Your task to perform on an android device: Search for lenovo thinkpad on costco, select the first entry, and add it to the cart. Image 0: 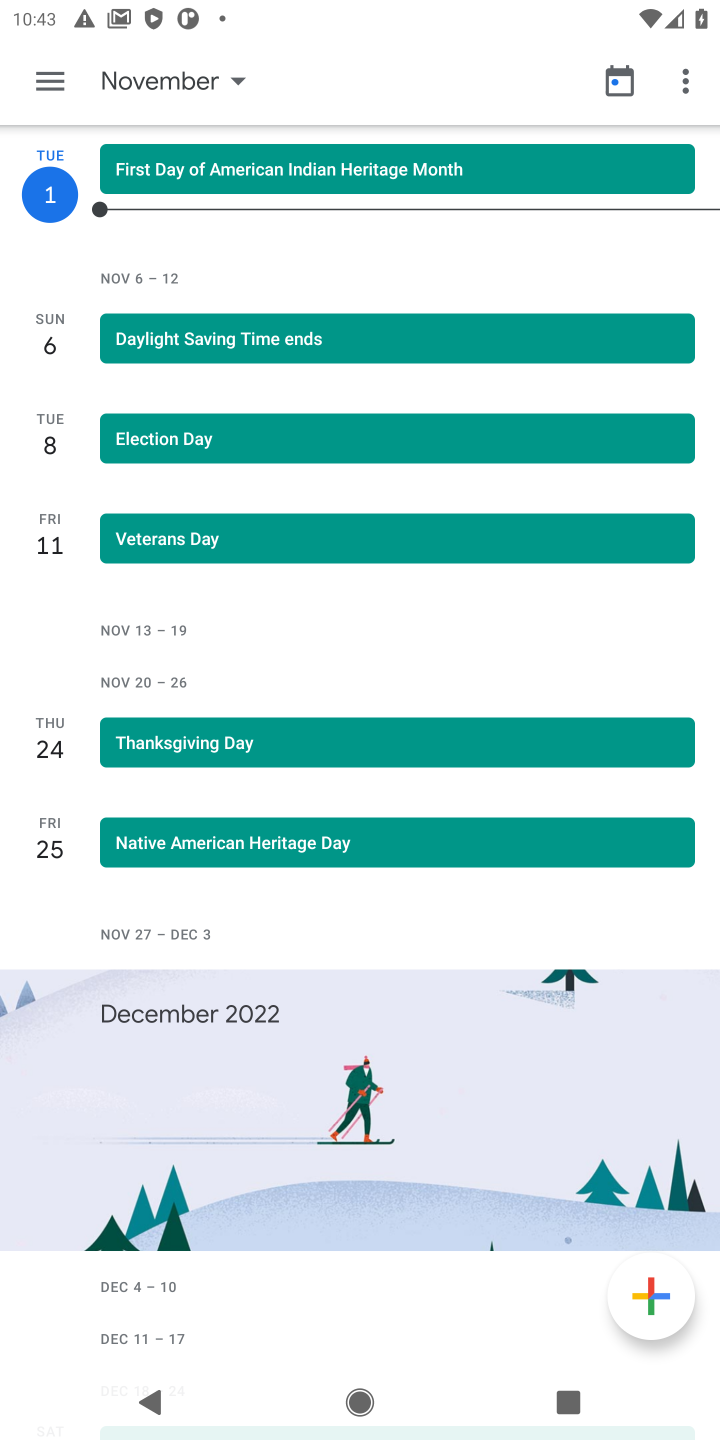
Step 0: press home button
Your task to perform on an android device: Search for lenovo thinkpad on costco, select the first entry, and add it to the cart. Image 1: 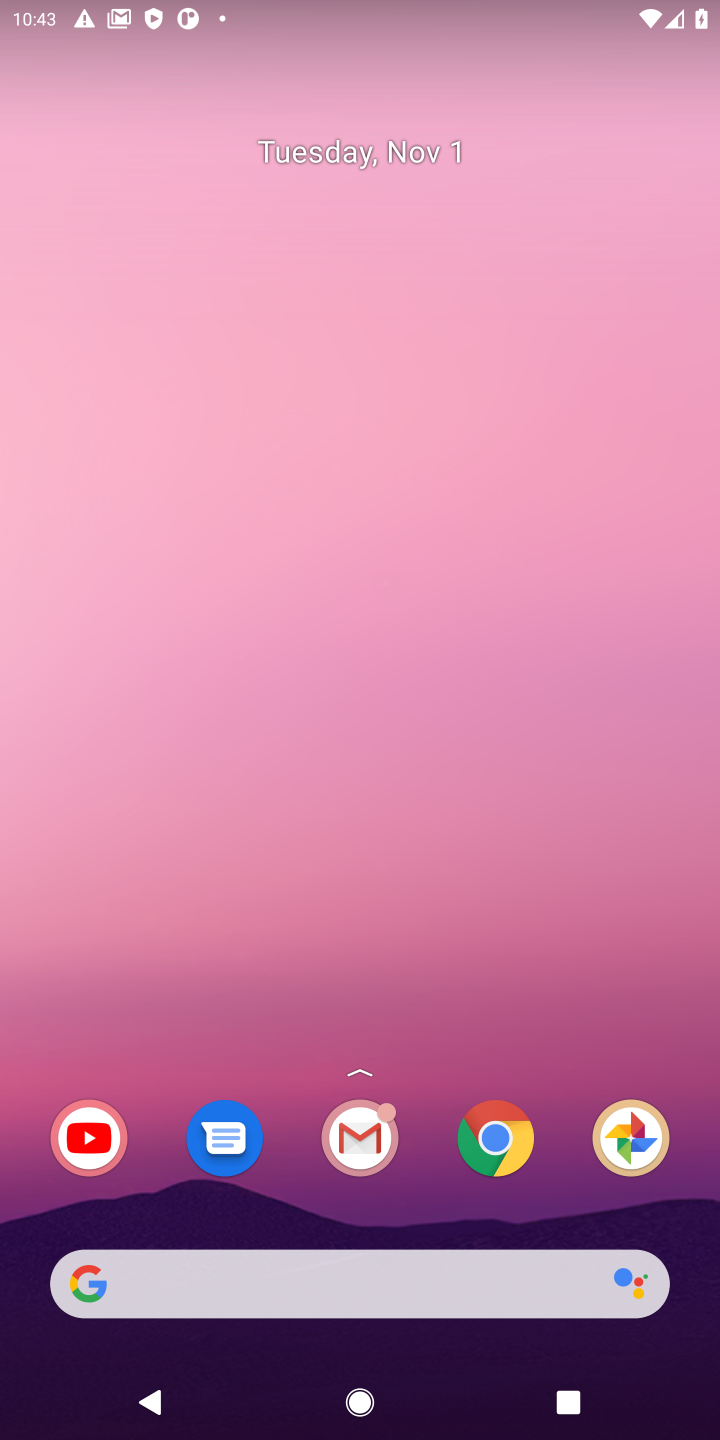
Step 1: click (485, 1141)
Your task to perform on an android device: Search for lenovo thinkpad on costco, select the first entry, and add it to the cart. Image 2: 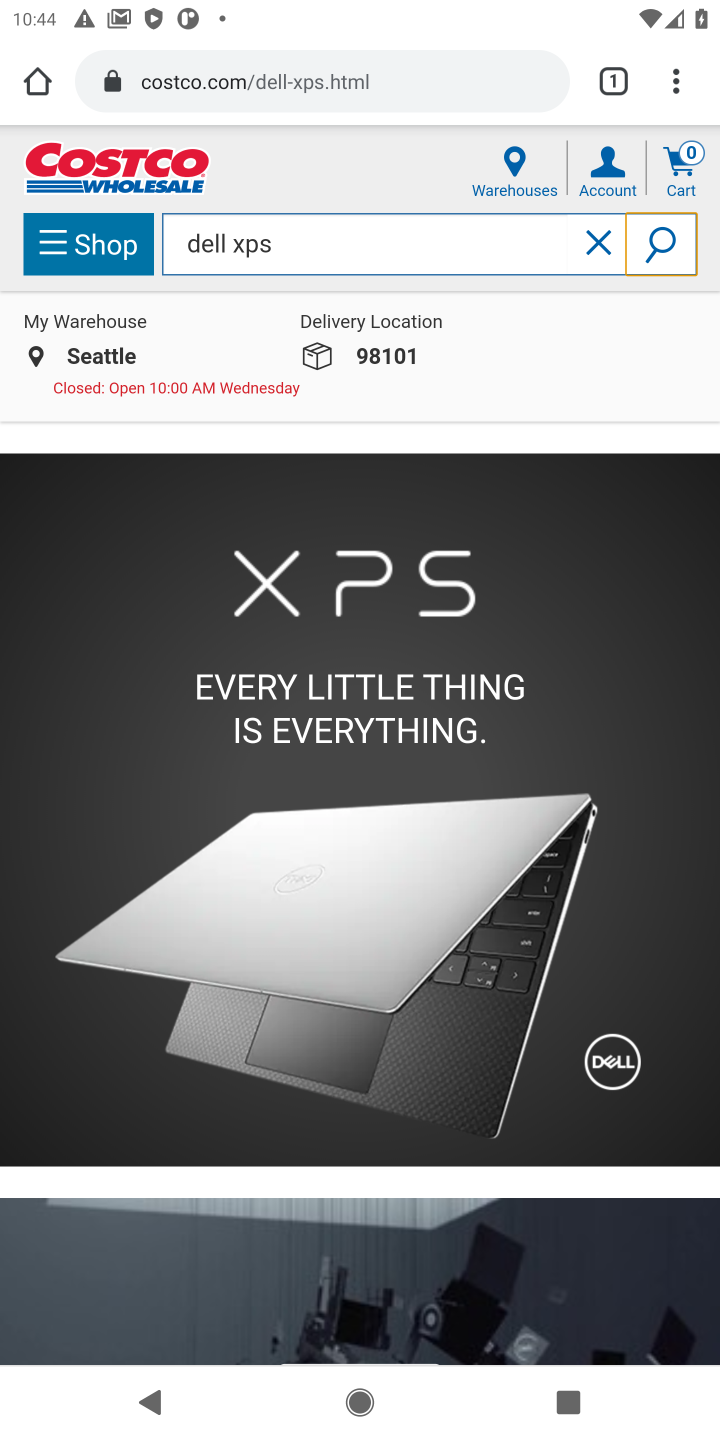
Step 2: click (601, 248)
Your task to perform on an android device: Search for lenovo thinkpad on costco, select the first entry, and add it to the cart. Image 3: 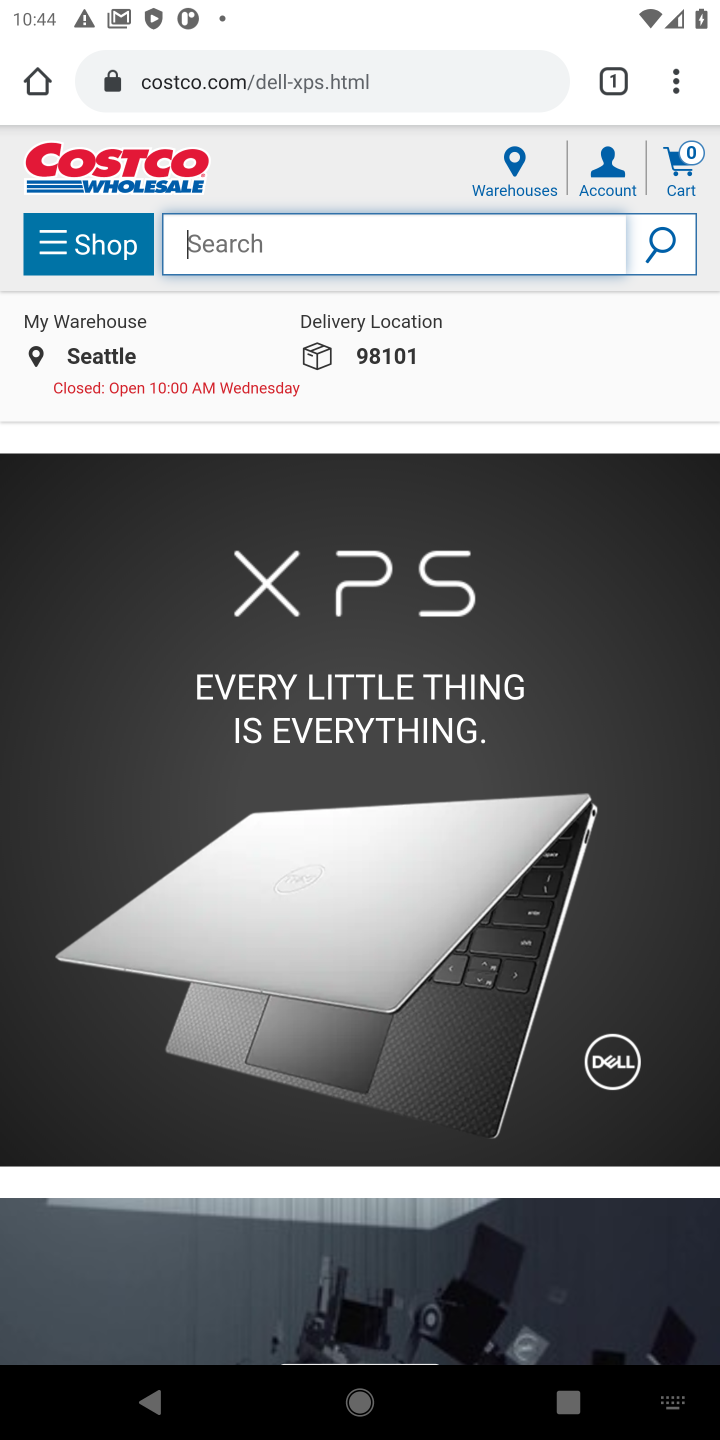
Step 3: click (251, 247)
Your task to perform on an android device: Search for lenovo thinkpad on costco, select the first entry, and add it to the cart. Image 4: 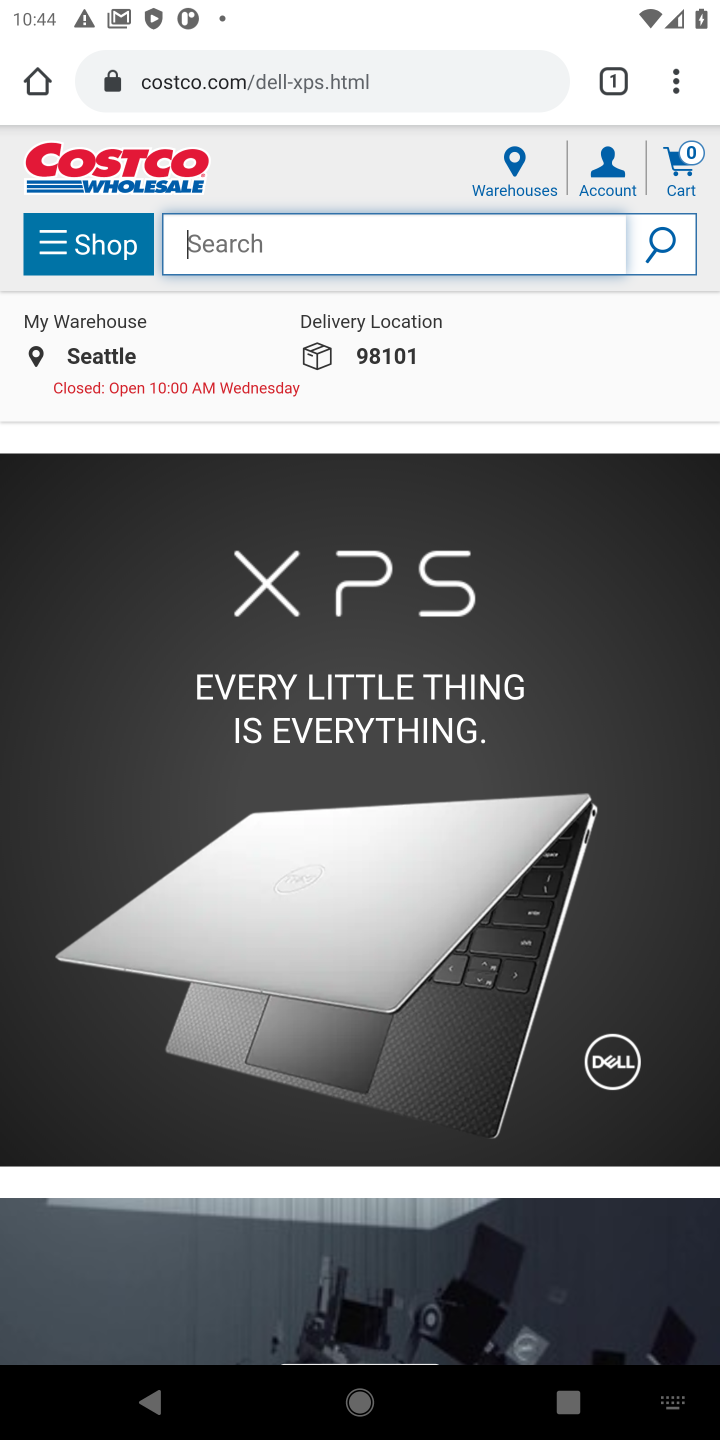
Step 4: type "lenovo thinkpad "
Your task to perform on an android device: Search for lenovo thinkpad on costco, select the first entry, and add it to the cart. Image 5: 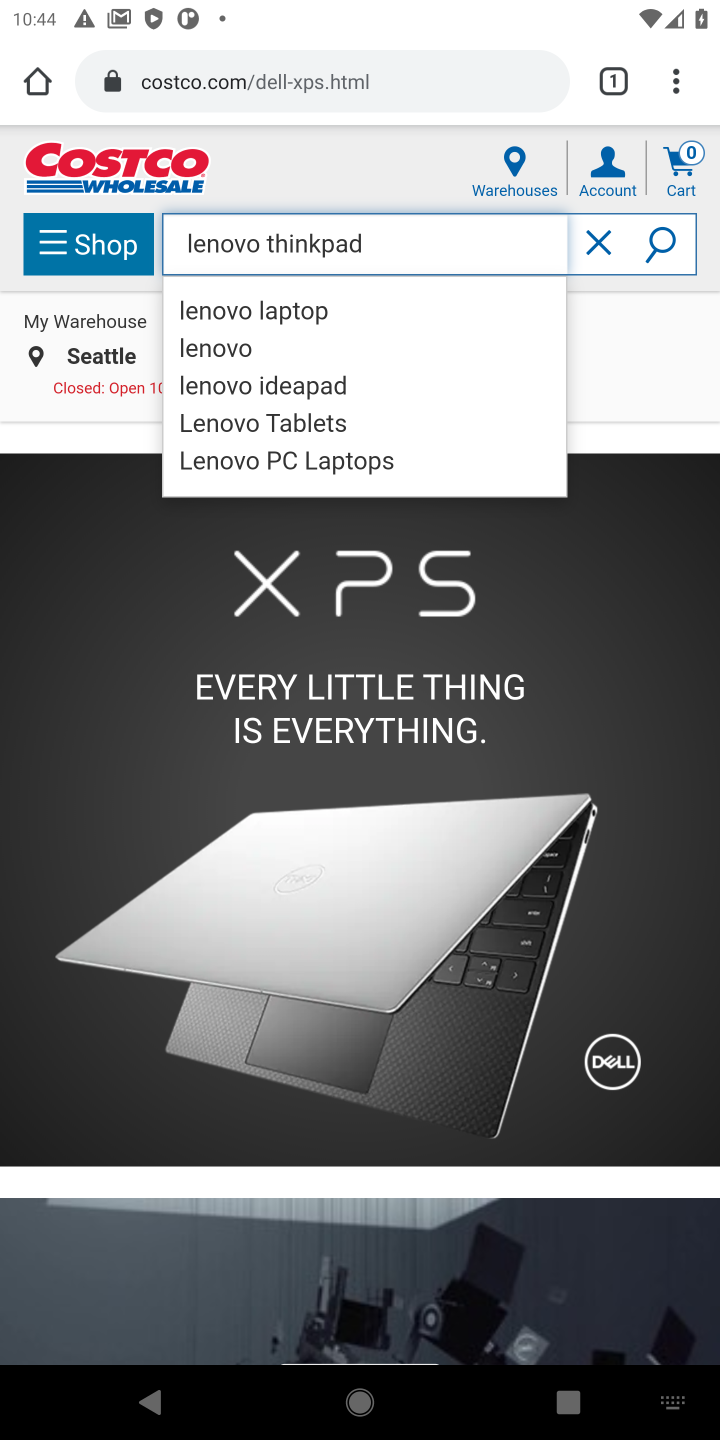
Step 5: click (653, 244)
Your task to perform on an android device: Search for lenovo thinkpad on costco, select the first entry, and add it to the cart. Image 6: 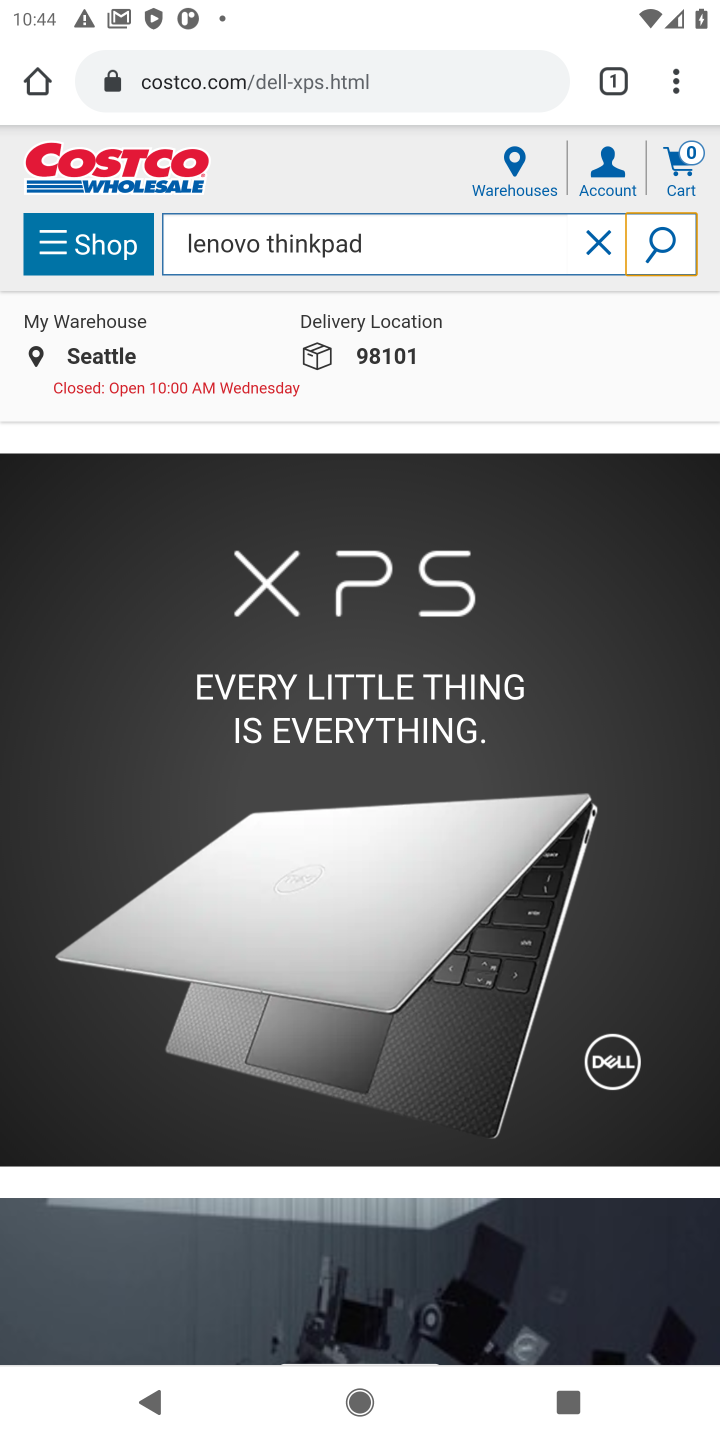
Step 6: click (658, 242)
Your task to perform on an android device: Search for lenovo thinkpad on costco, select the first entry, and add it to the cart. Image 7: 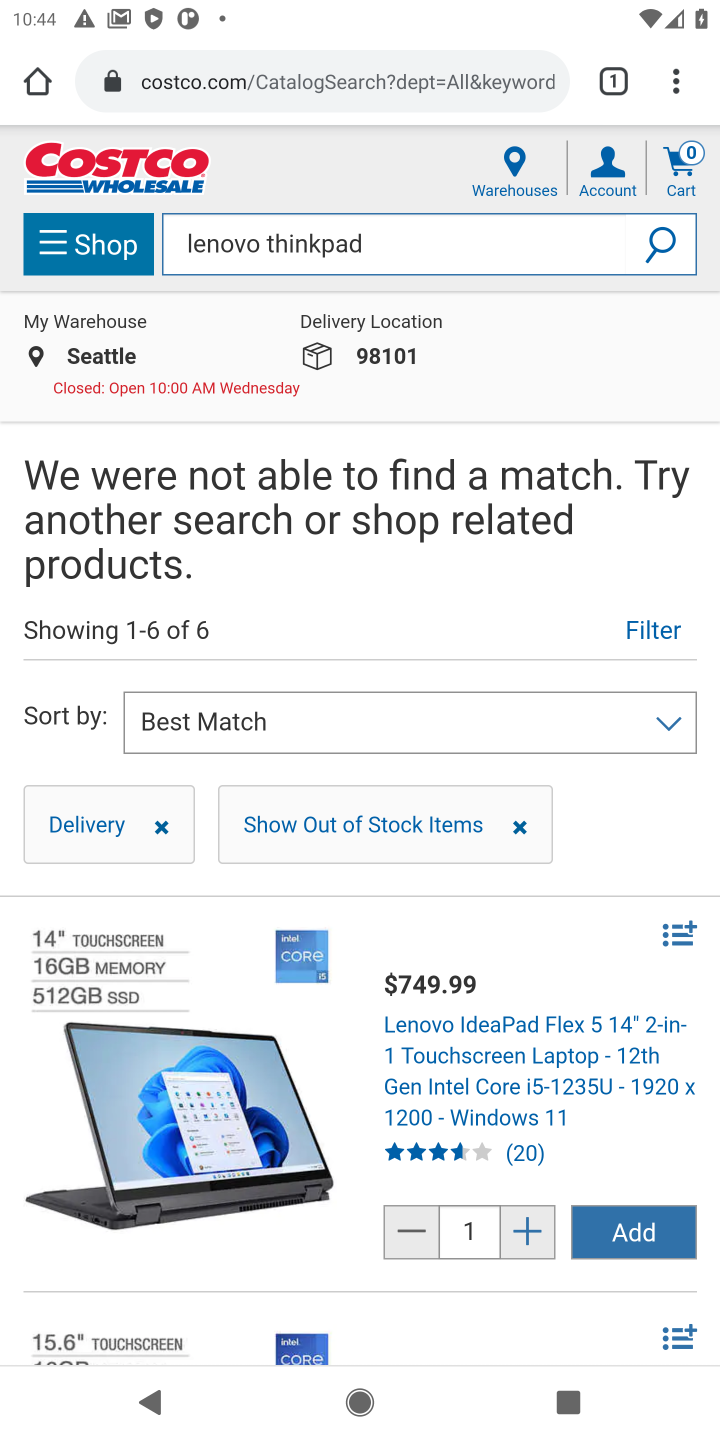
Step 7: task complete